Your task to perform on an android device: open chrome and create a bookmark for the current page Image 0: 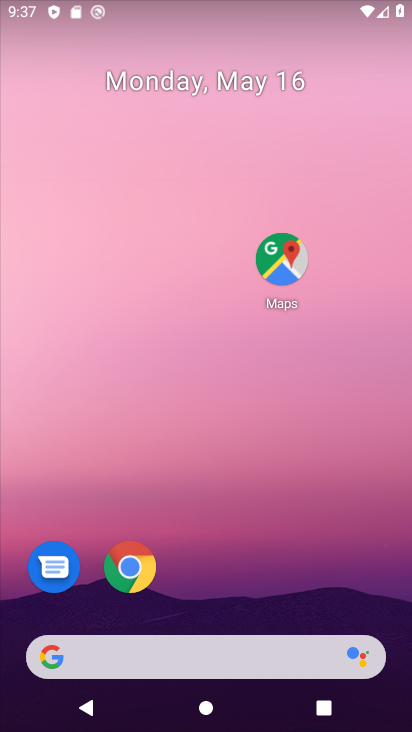
Step 0: click (127, 564)
Your task to perform on an android device: open chrome and create a bookmark for the current page Image 1: 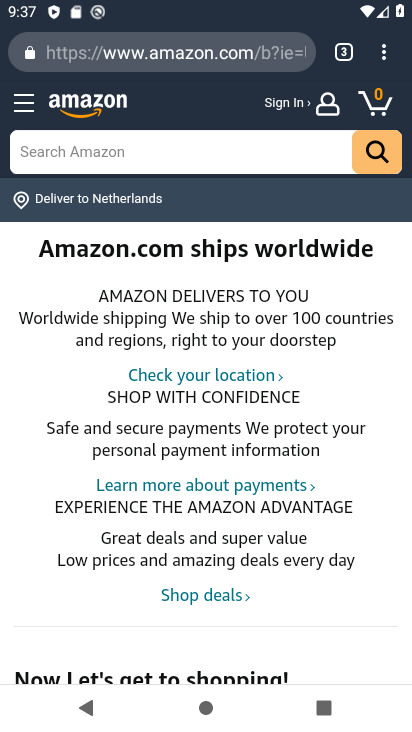
Step 1: click (380, 52)
Your task to perform on an android device: open chrome and create a bookmark for the current page Image 2: 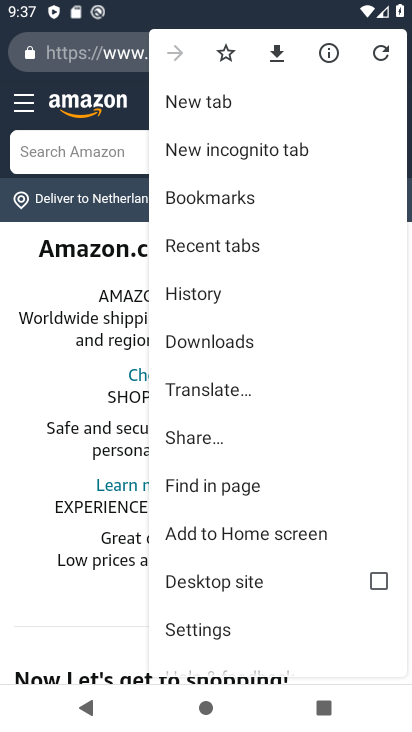
Step 2: click (237, 206)
Your task to perform on an android device: open chrome and create a bookmark for the current page Image 3: 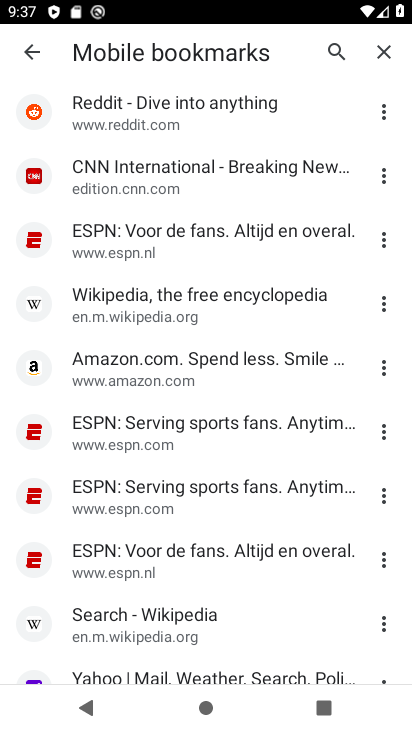
Step 3: click (139, 300)
Your task to perform on an android device: open chrome and create a bookmark for the current page Image 4: 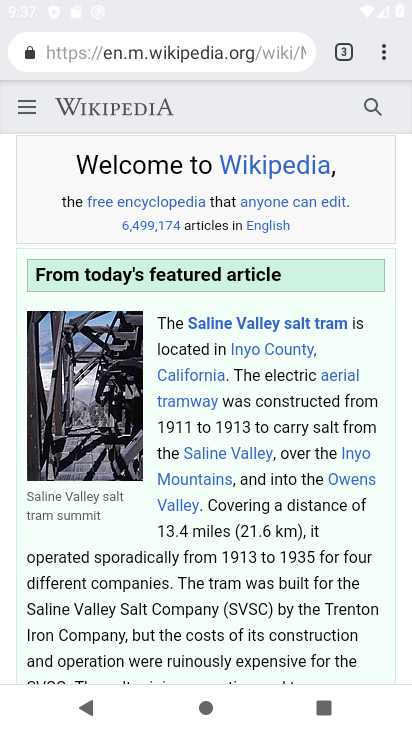
Step 4: task complete